Your task to perform on an android device: Add asus rog to the cart on target.com Image 0: 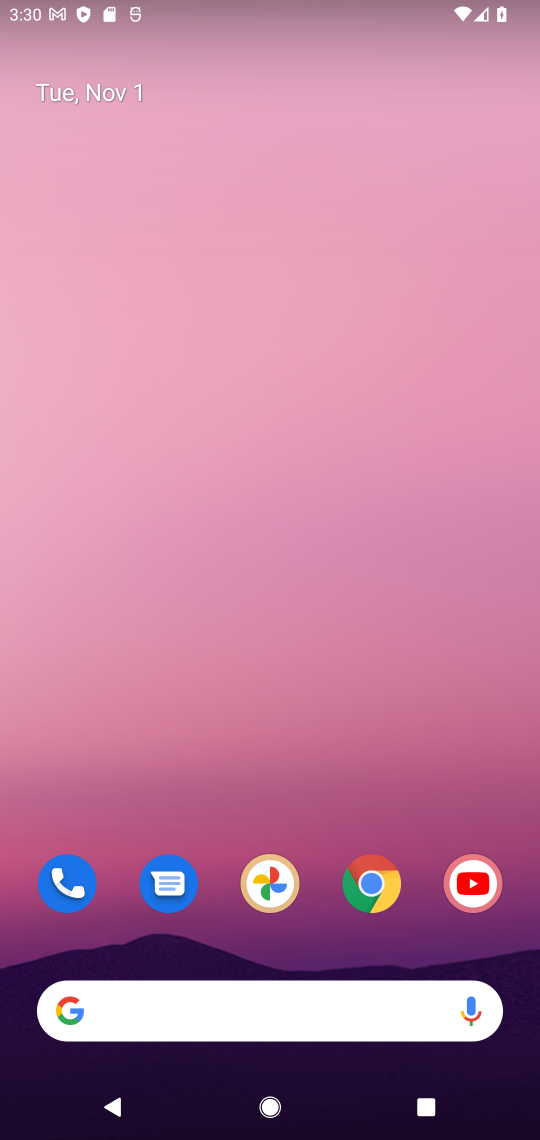
Step 0: click (366, 880)
Your task to perform on an android device: Add asus rog to the cart on target.com Image 1: 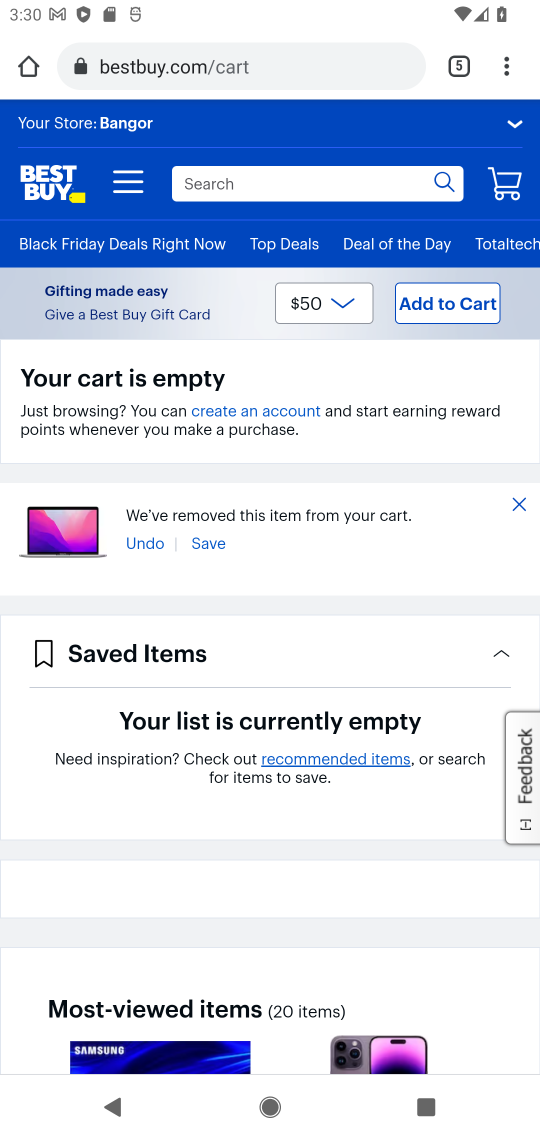
Step 1: click (460, 65)
Your task to perform on an android device: Add asus rog to the cart on target.com Image 2: 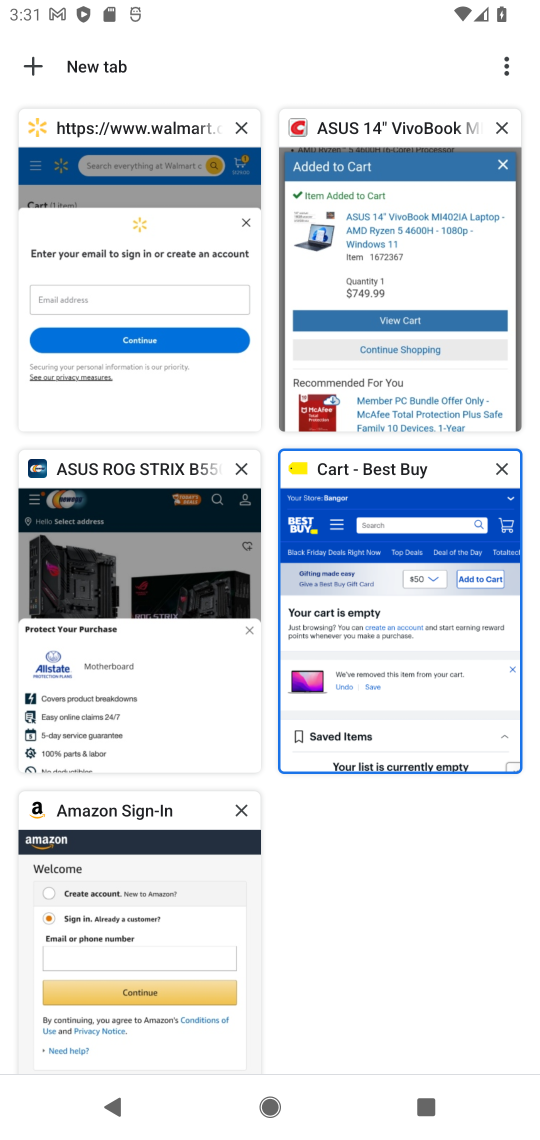
Step 2: click (27, 61)
Your task to perform on an android device: Add asus rog to the cart on target.com Image 3: 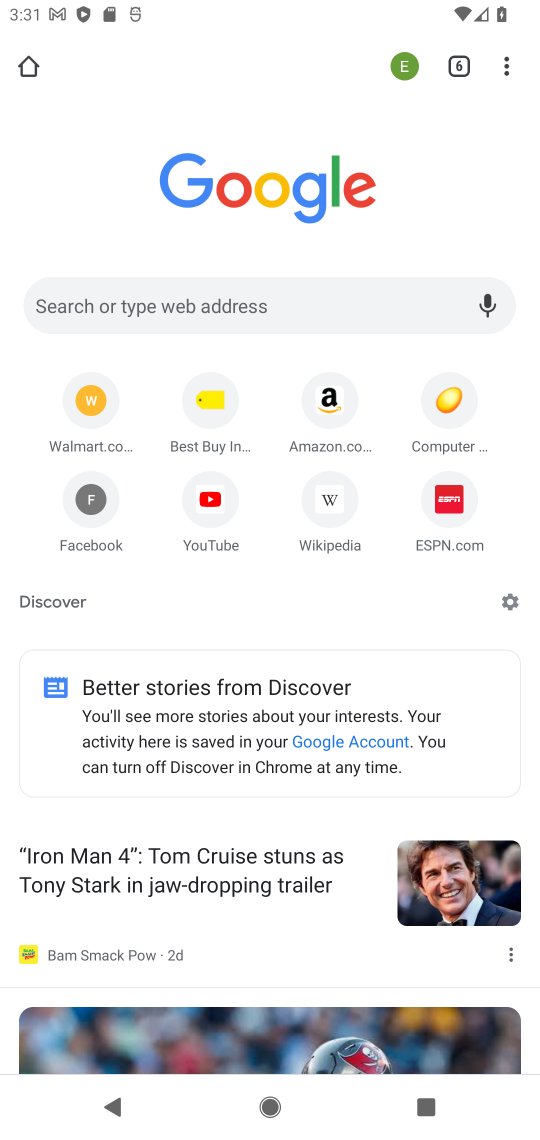
Step 3: click (330, 306)
Your task to perform on an android device: Add asus rog to the cart on target.com Image 4: 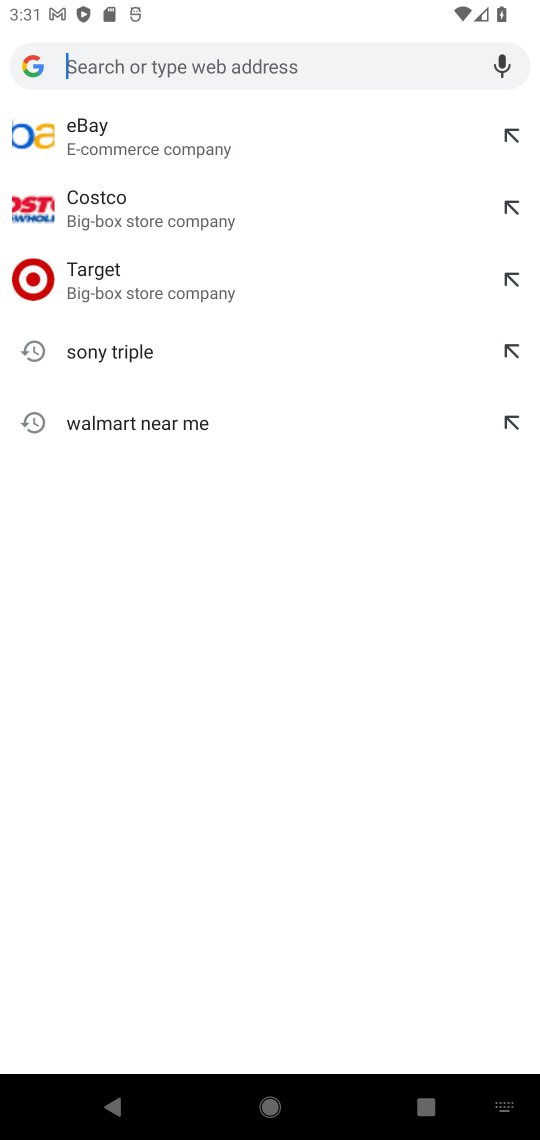
Step 4: click (94, 275)
Your task to perform on an android device: Add asus rog to the cart on target.com Image 5: 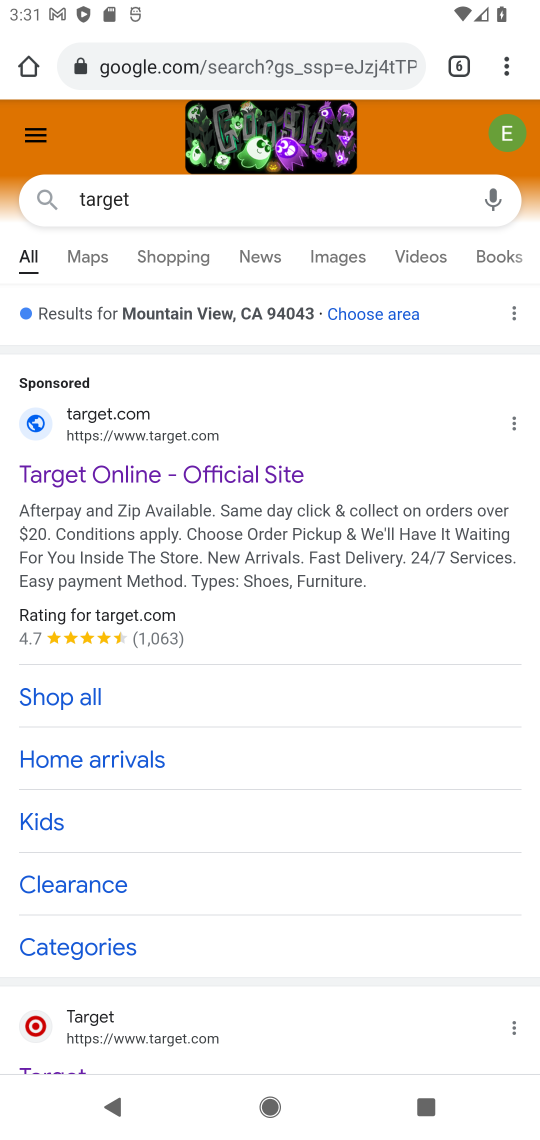
Step 5: click (96, 1021)
Your task to perform on an android device: Add asus rog to the cart on target.com Image 6: 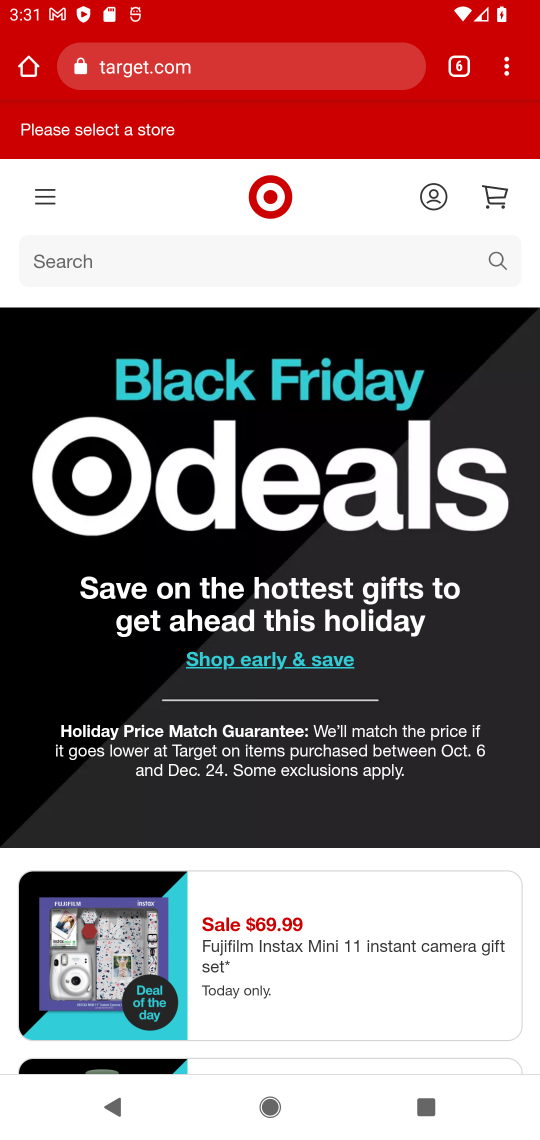
Step 6: click (245, 268)
Your task to perform on an android device: Add asus rog to the cart on target.com Image 7: 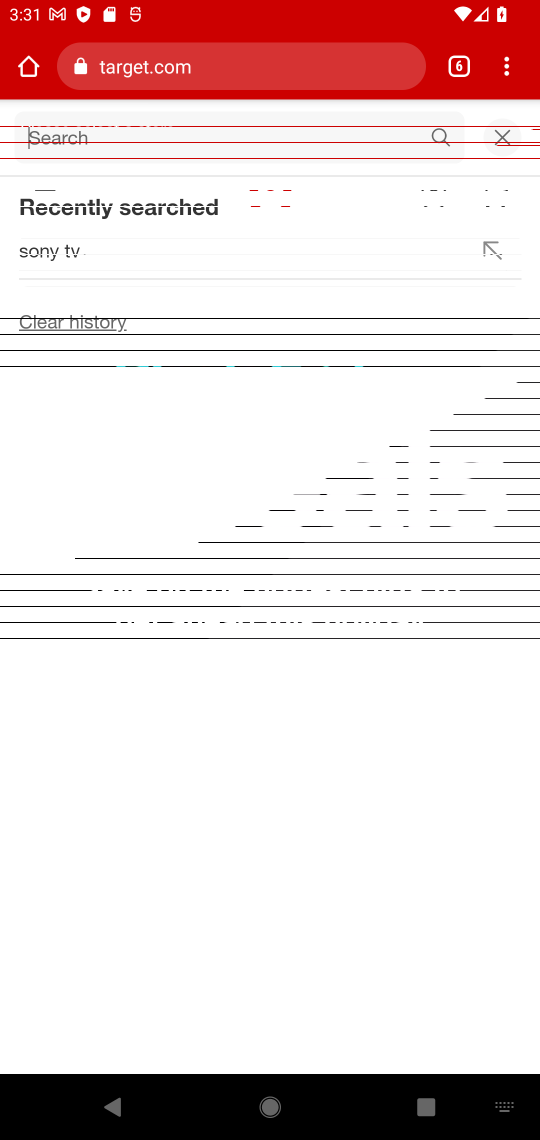
Step 7: type "asus rog"
Your task to perform on an android device: Add asus rog to the cart on target.com Image 8: 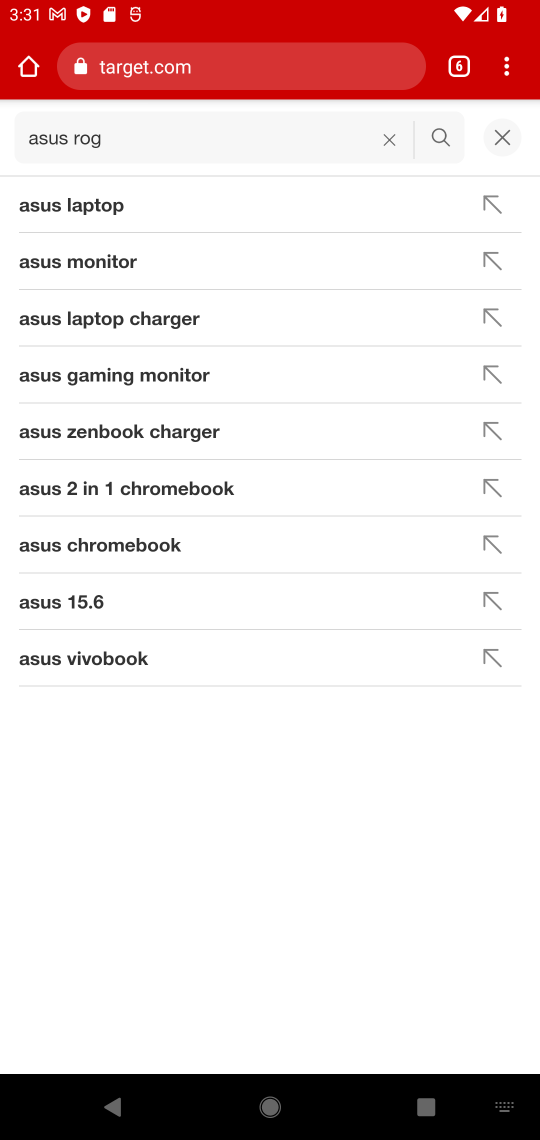
Step 8: click (72, 202)
Your task to perform on an android device: Add asus rog to the cart on target.com Image 9: 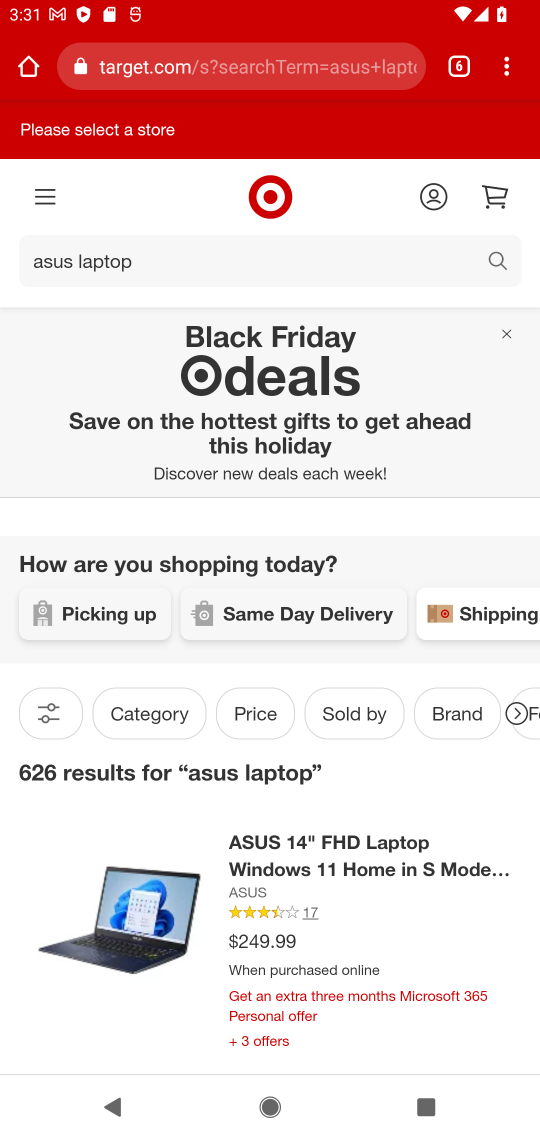
Step 9: drag from (371, 982) to (437, 430)
Your task to perform on an android device: Add asus rog to the cart on target.com Image 10: 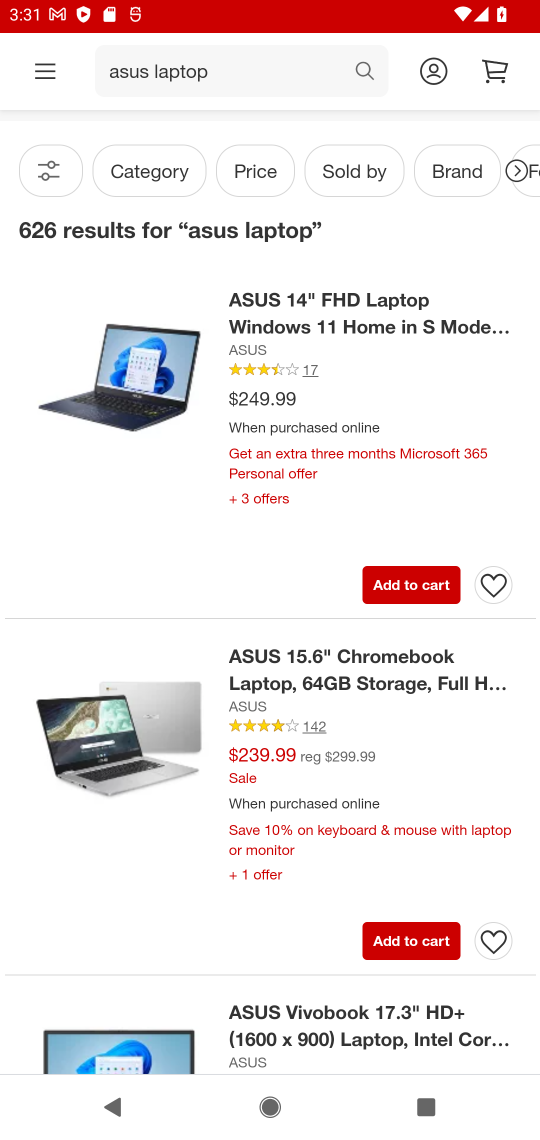
Step 10: click (407, 592)
Your task to perform on an android device: Add asus rog to the cart on target.com Image 11: 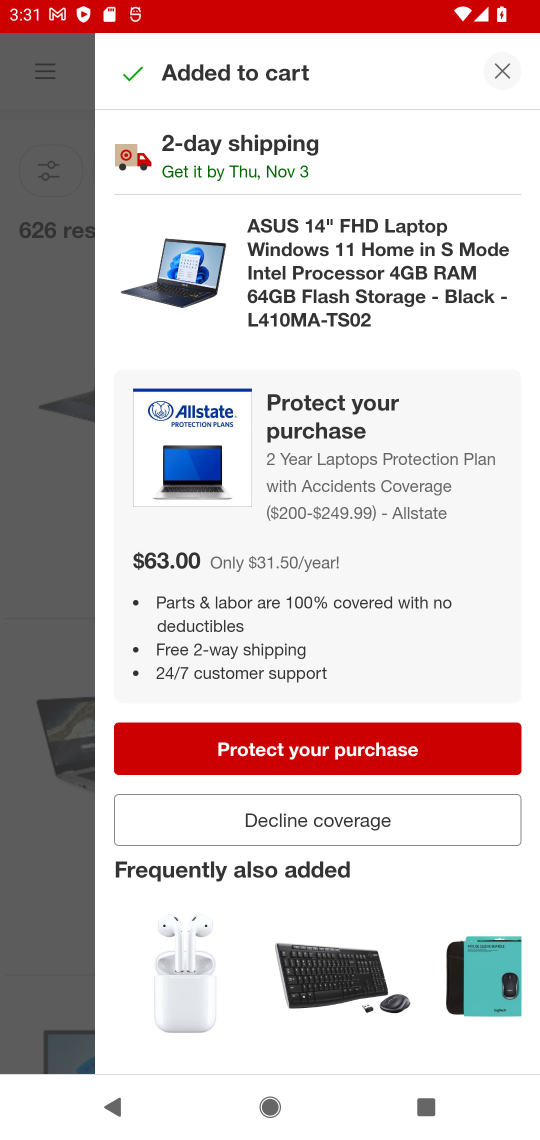
Step 11: task complete